Your task to perform on an android device: Go to Google maps Image 0: 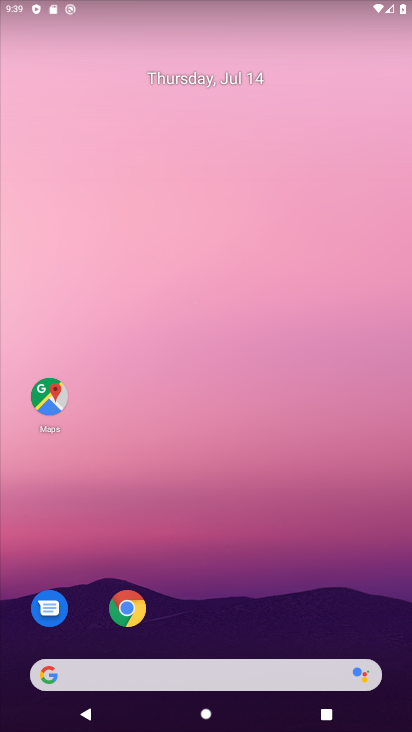
Step 0: click (48, 390)
Your task to perform on an android device: Go to Google maps Image 1: 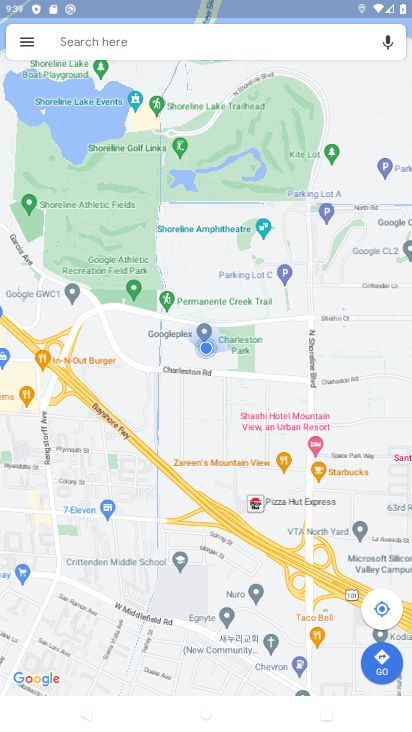
Step 1: task complete